Your task to perform on an android device: Open Reddit.com Image 0: 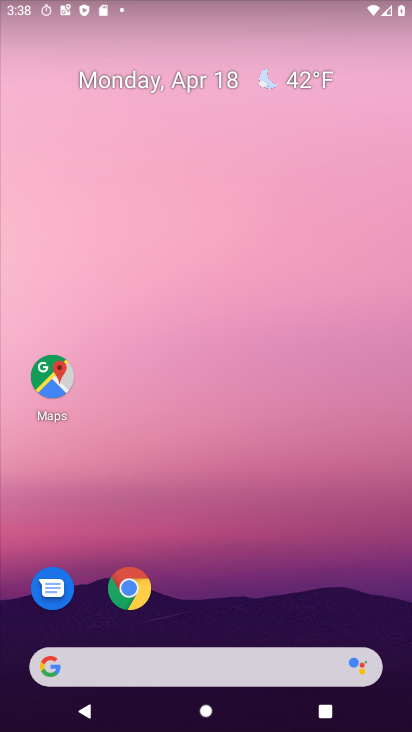
Step 0: click (135, 592)
Your task to perform on an android device: Open Reddit.com Image 1: 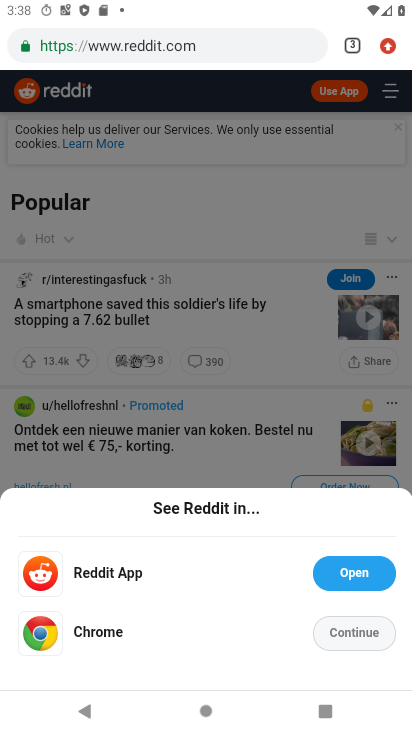
Step 1: task complete